Your task to perform on an android device: turn on airplane mode Image 0: 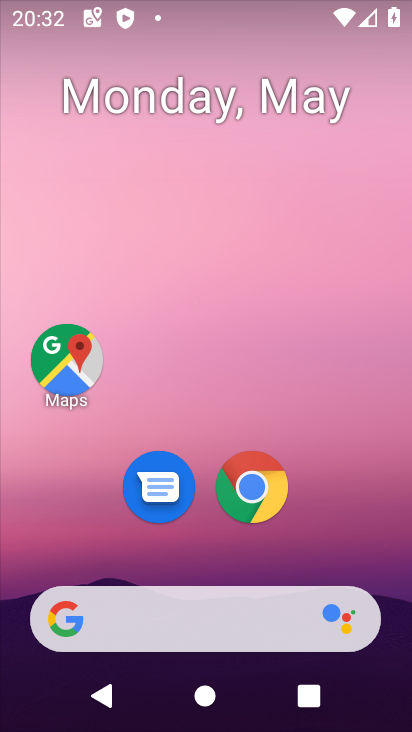
Step 0: drag from (384, 572) to (373, 345)
Your task to perform on an android device: turn on airplane mode Image 1: 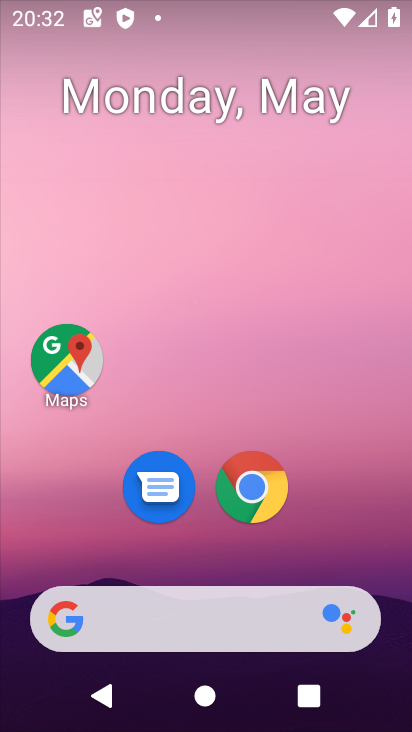
Step 1: drag from (372, 533) to (366, 108)
Your task to perform on an android device: turn on airplane mode Image 2: 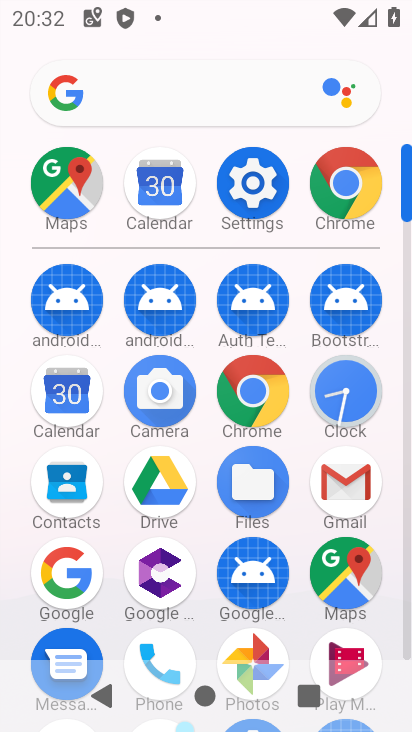
Step 2: click (259, 200)
Your task to perform on an android device: turn on airplane mode Image 3: 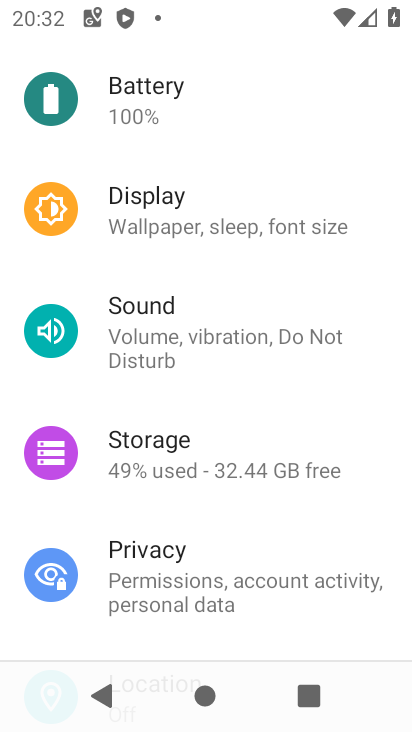
Step 3: drag from (366, 212) to (368, 344)
Your task to perform on an android device: turn on airplane mode Image 4: 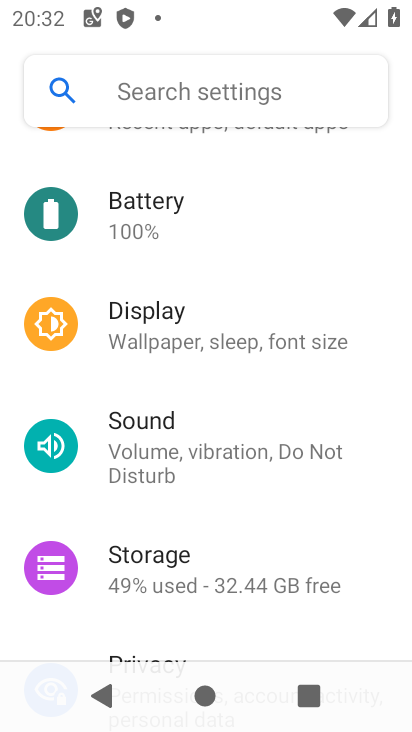
Step 4: drag from (382, 201) to (383, 320)
Your task to perform on an android device: turn on airplane mode Image 5: 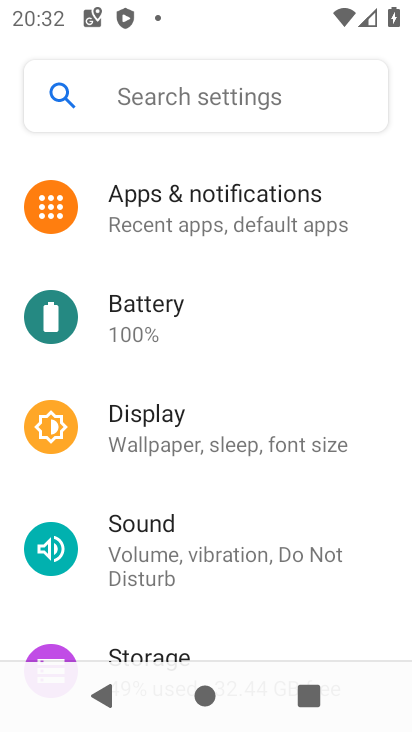
Step 5: drag from (374, 203) to (379, 410)
Your task to perform on an android device: turn on airplane mode Image 6: 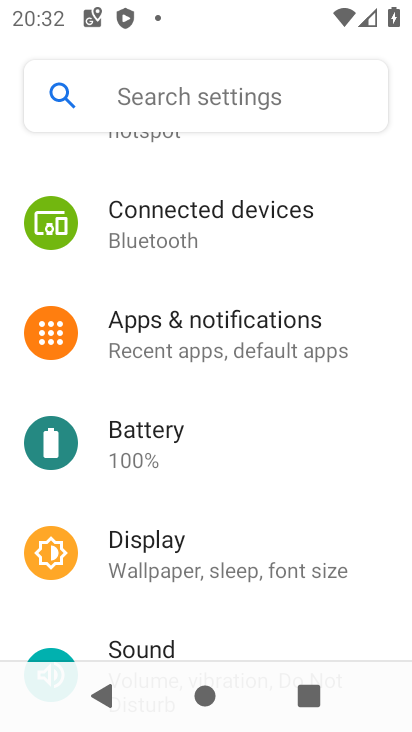
Step 6: drag from (373, 194) to (364, 342)
Your task to perform on an android device: turn on airplane mode Image 7: 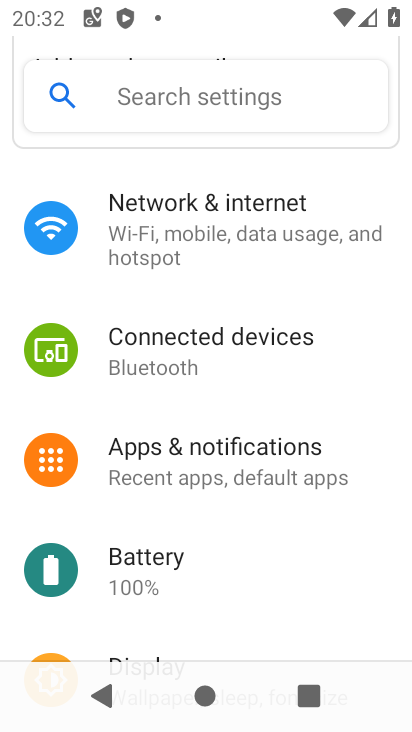
Step 7: drag from (366, 186) to (365, 369)
Your task to perform on an android device: turn on airplane mode Image 8: 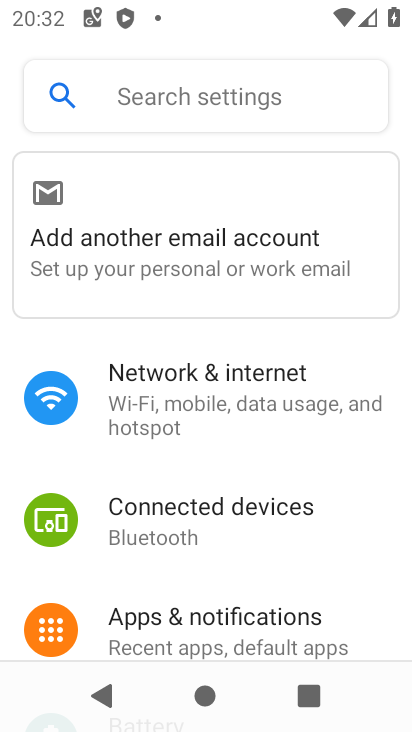
Step 8: drag from (374, 179) to (372, 380)
Your task to perform on an android device: turn on airplane mode Image 9: 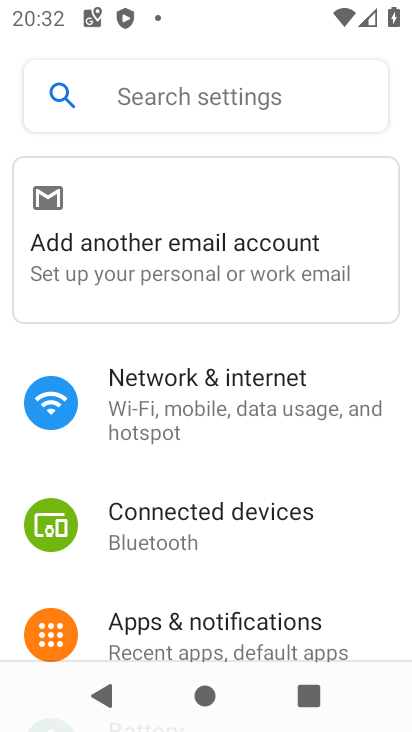
Step 9: click (282, 411)
Your task to perform on an android device: turn on airplane mode Image 10: 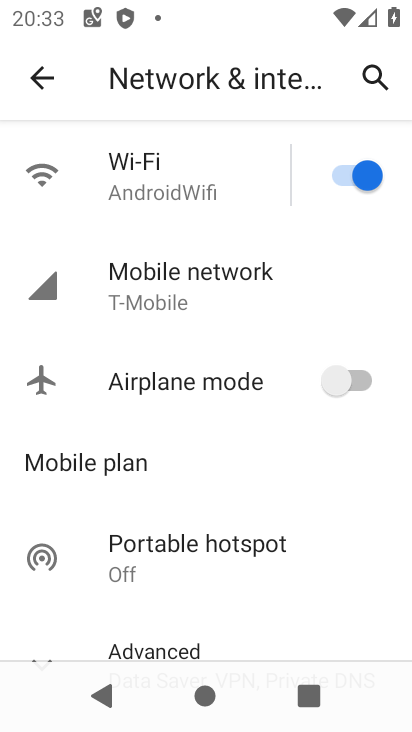
Step 10: click (334, 397)
Your task to perform on an android device: turn on airplane mode Image 11: 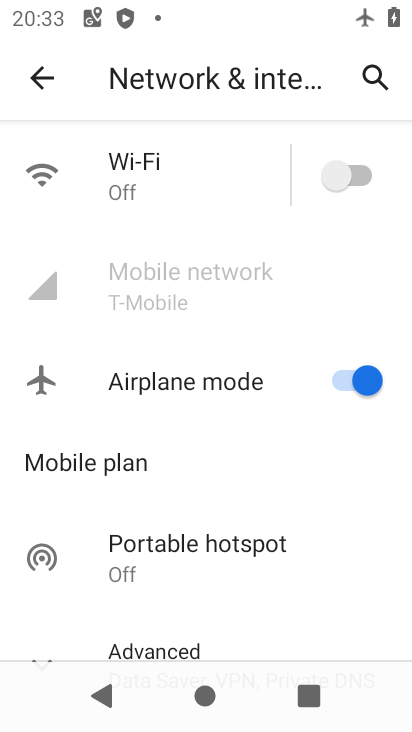
Step 11: task complete